Your task to perform on an android device: open chrome privacy settings Image 0: 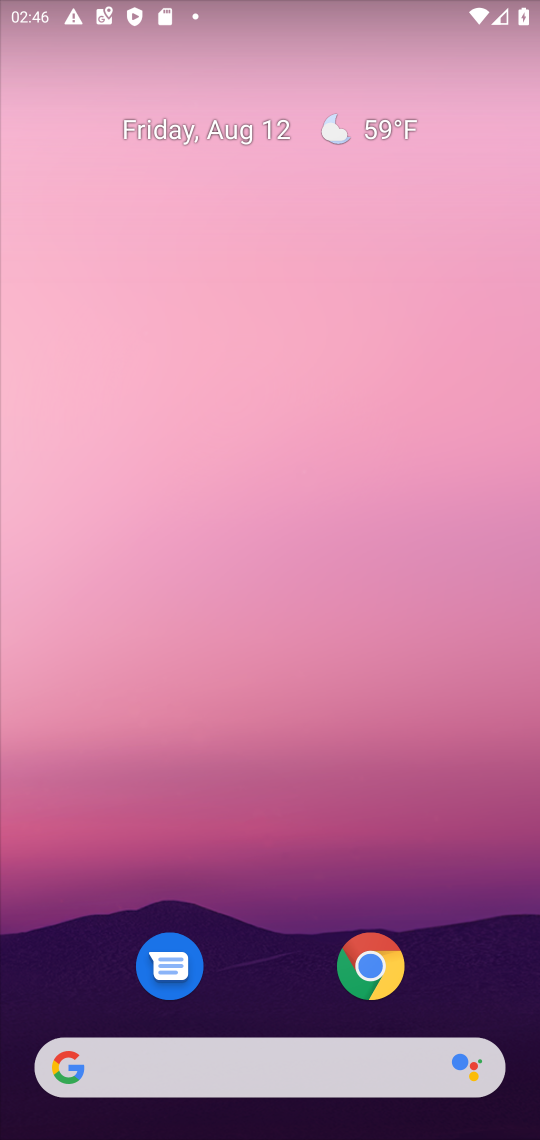
Step 0: drag from (278, 657) to (345, 29)
Your task to perform on an android device: open chrome privacy settings Image 1: 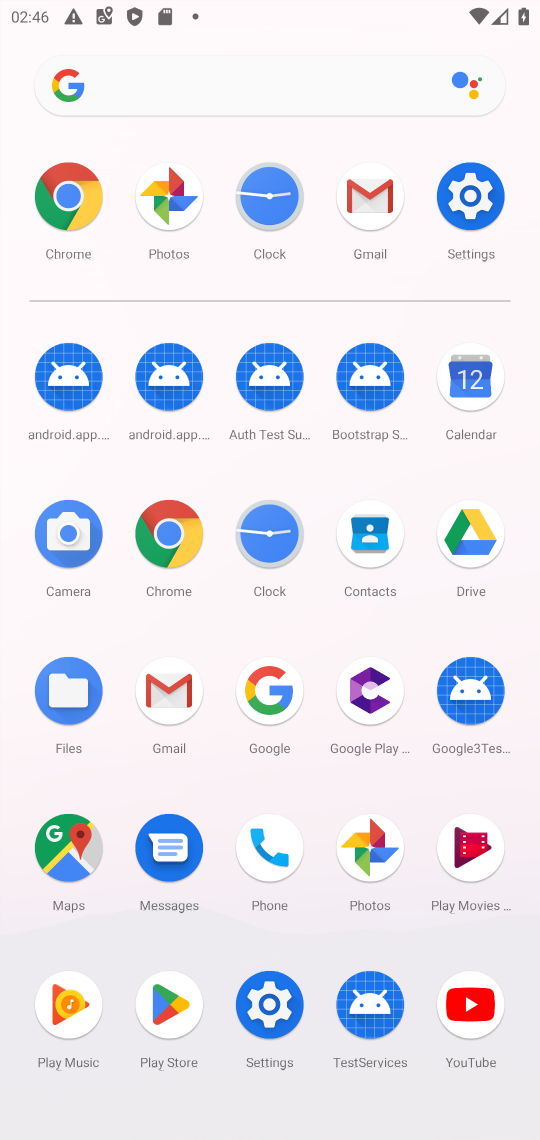
Step 1: click (163, 530)
Your task to perform on an android device: open chrome privacy settings Image 2: 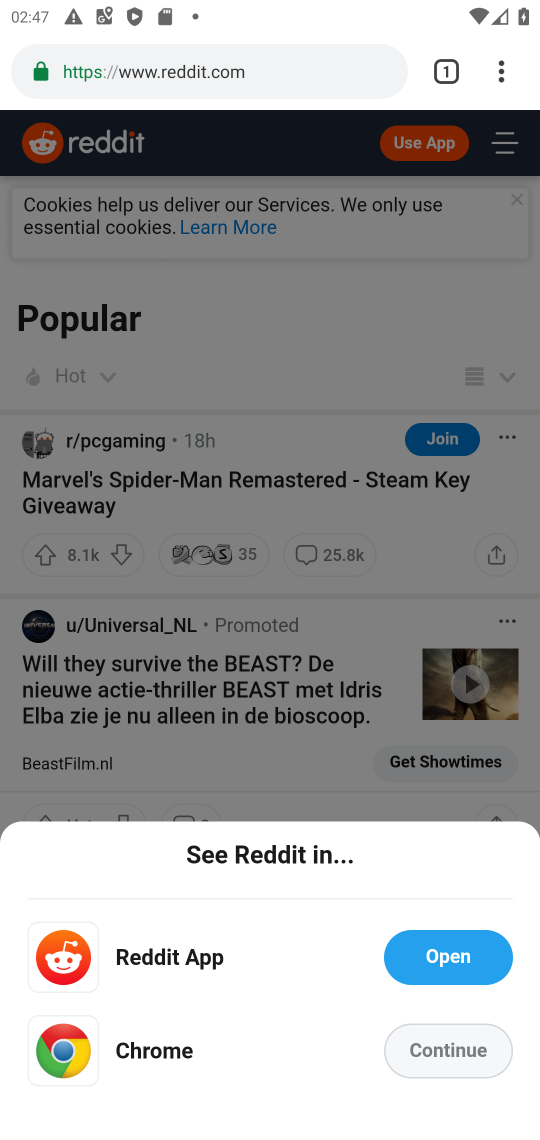
Step 2: drag from (513, 66) to (233, 866)
Your task to perform on an android device: open chrome privacy settings Image 3: 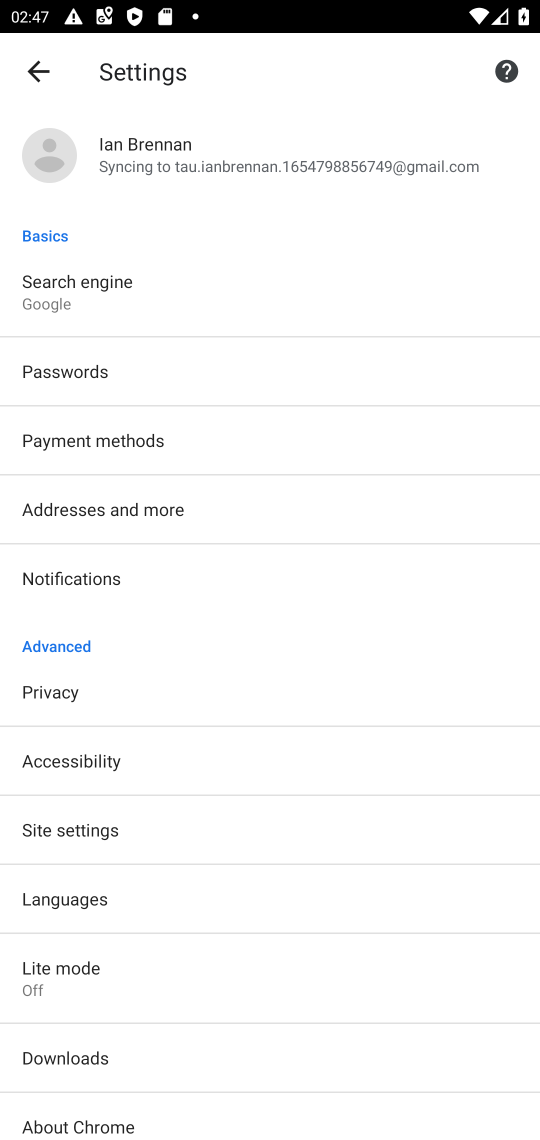
Step 3: click (37, 681)
Your task to perform on an android device: open chrome privacy settings Image 4: 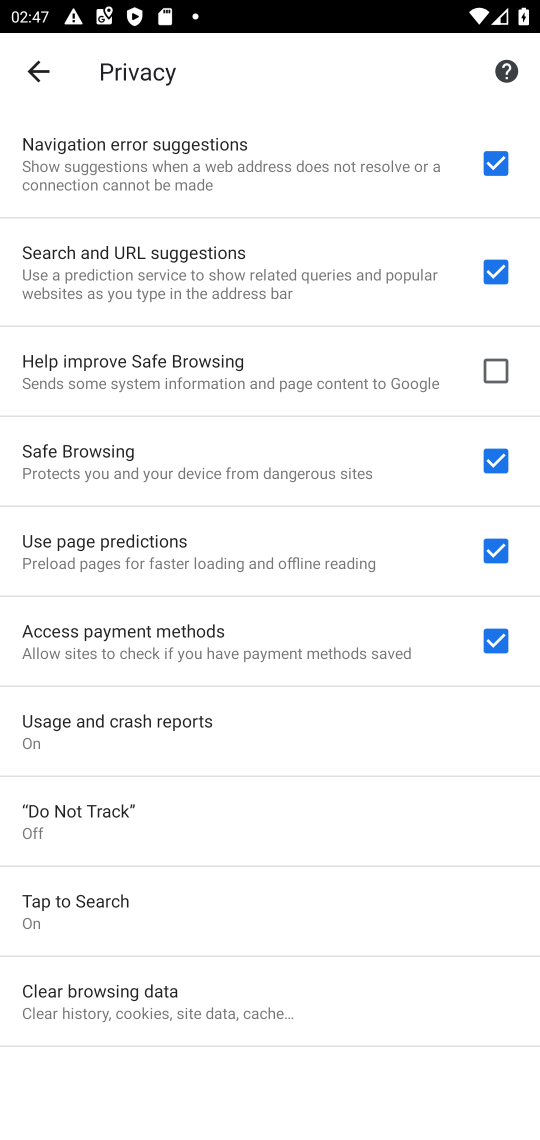
Step 4: task complete